Your task to perform on an android device: Turn on the flashlight Image 0: 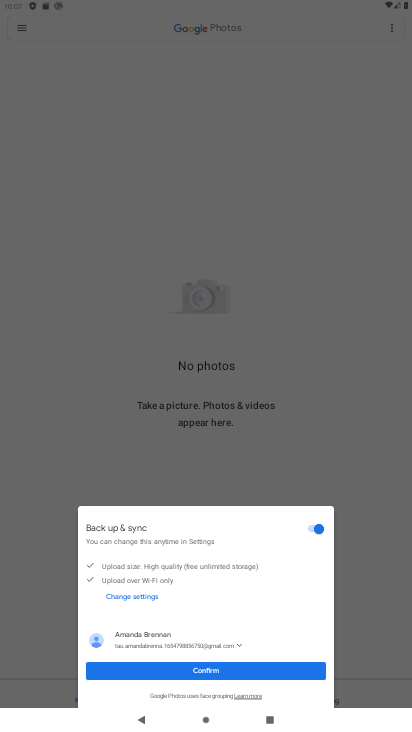
Step 0: drag from (195, 557) to (172, 109)
Your task to perform on an android device: Turn on the flashlight Image 1: 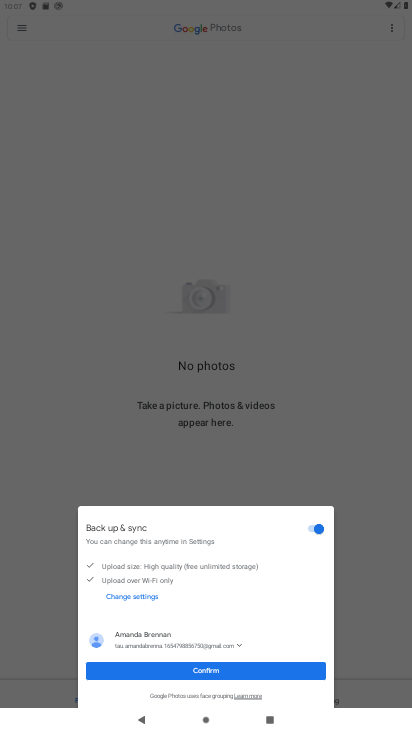
Step 1: click (184, 146)
Your task to perform on an android device: Turn on the flashlight Image 2: 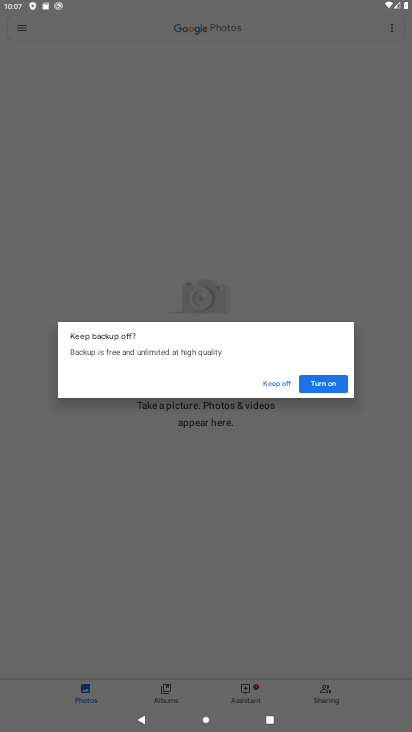
Step 2: task complete